Your task to perform on an android device: What's the weather going to be this weekend? Image 0: 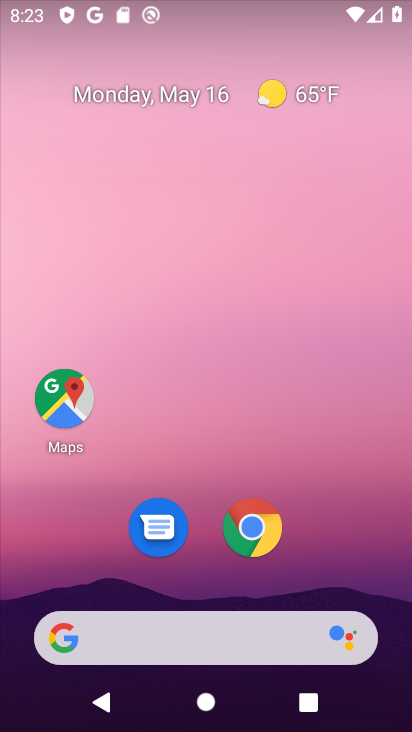
Step 0: drag from (311, 604) to (286, 215)
Your task to perform on an android device: What's the weather going to be this weekend? Image 1: 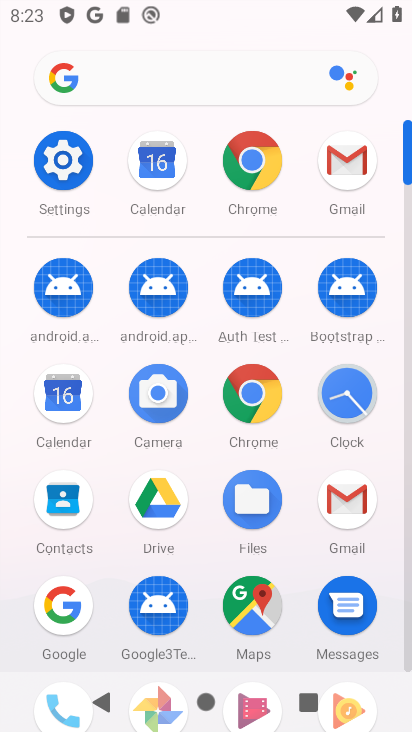
Step 1: click (231, 395)
Your task to perform on an android device: What's the weather going to be this weekend? Image 2: 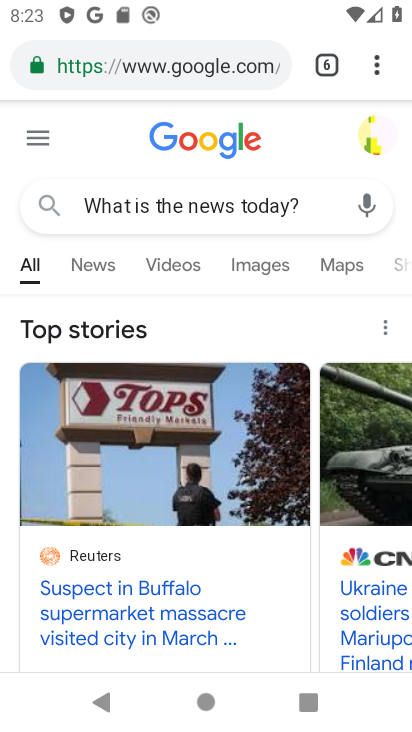
Step 2: click (365, 64)
Your task to perform on an android device: What's the weather going to be this weekend? Image 3: 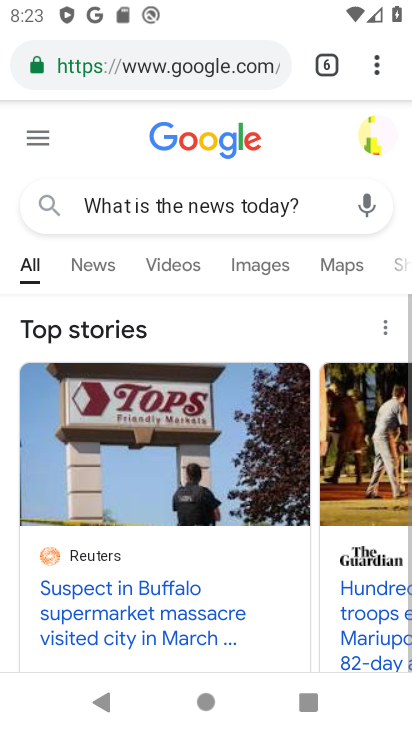
Step 3: click (360, 58)
Your task to perform on an android device: What's the weather going to be this weekend? Image 4: 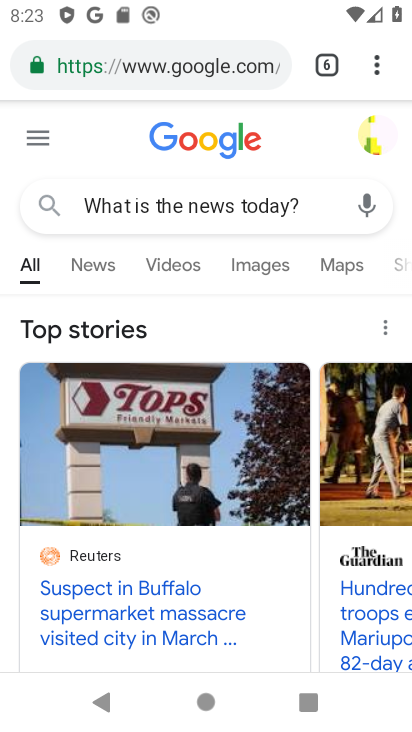
Step 4: click (355, 68)
Your task to perform on an android device: What's the weather going to be this weekend? Image 5: 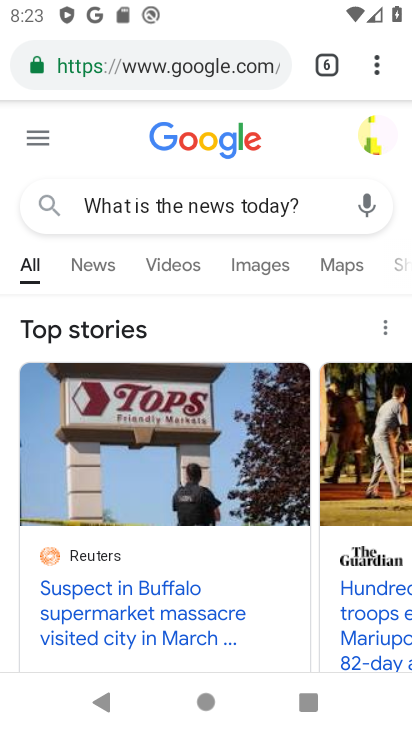
Step 5: click (375, 55)
Your task to perform on an android device: What's the weather going to be this weekend? Image 6: 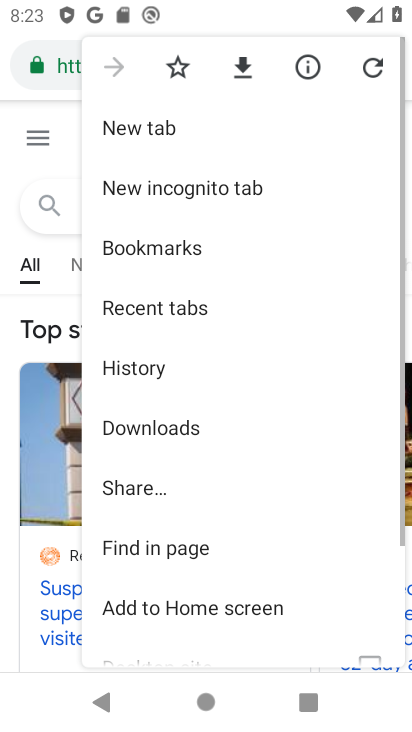
Step 6: click (175, 134)
Your task to perform on an android device: What's the weather going to be this weekend? Image 7: 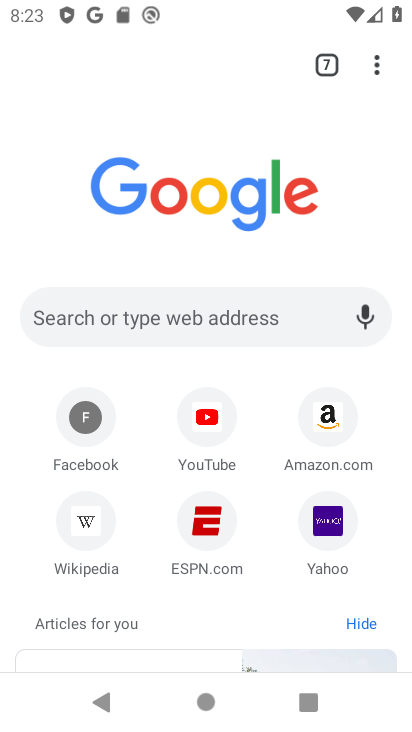
Step 7: click (186, 306)
Your task to perform on an android device: What's the weather going to be this weekend? Image 8: 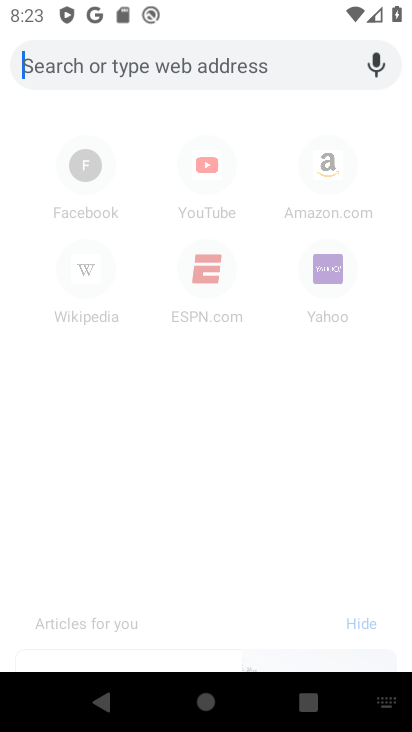
Step 8: click (300, 64)
Your task to perform on an android device: What's the weather going to be this weekend? Image 9: 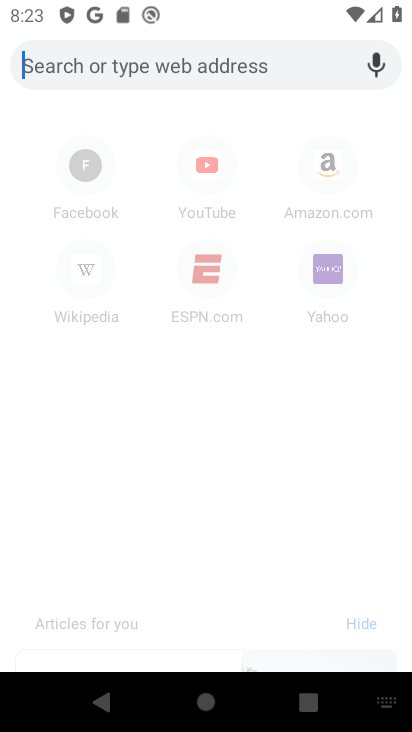
Step 9: type "What's the weather going to be this weekend?"
Your task to perform on an android device: What's the weather going to be this weekend? Image 10: 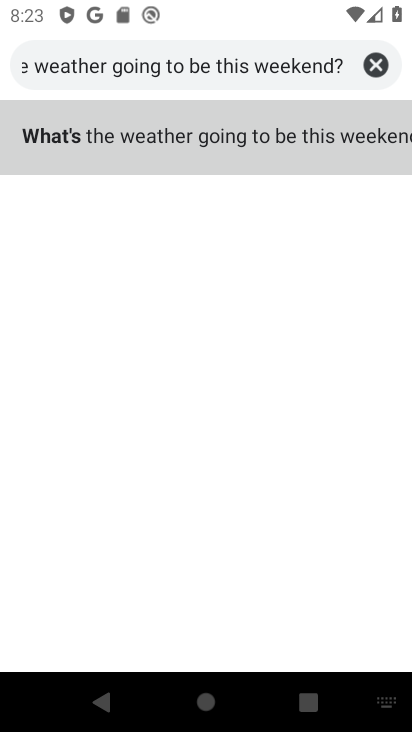
Step 10: click (273, 122)
Your task to perform on an android device: What's the weather going to be this weekend? Image 11: 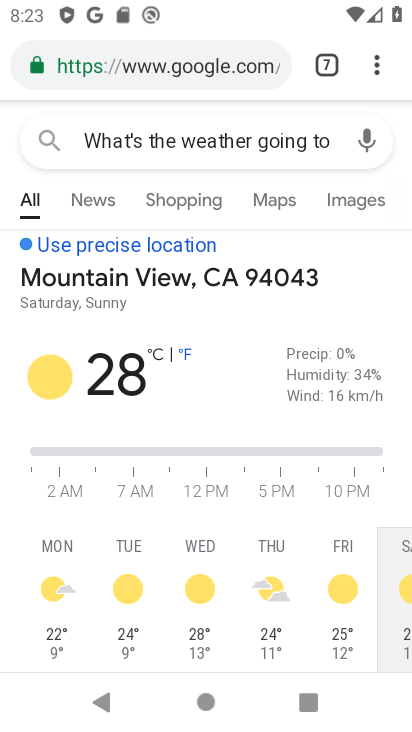
Step 11: task complete